Your task to perform on an android device: Do I have any events tomorrow? Image 0: 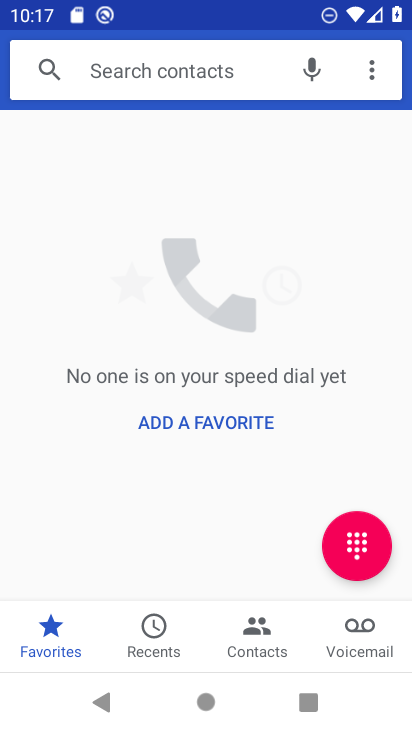
Step 0: press home button
Your task to perform on an android device: Do I have any events tomorrow? Image 1: 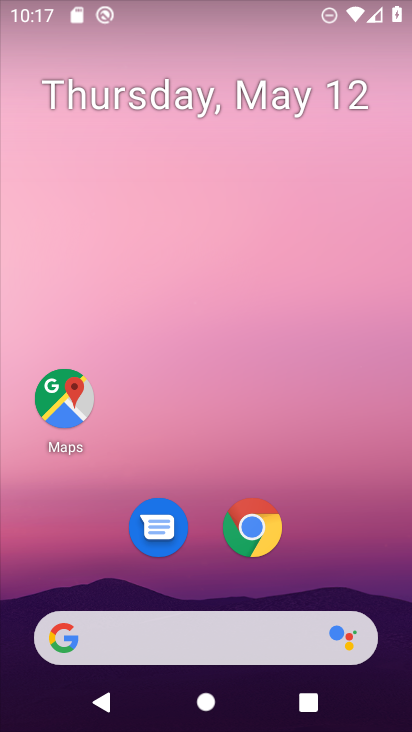
Step 1: drag from (343, 560) to (343, 154)
Your task to perform on an android device: Do I have any events tomorrow? Image 2: 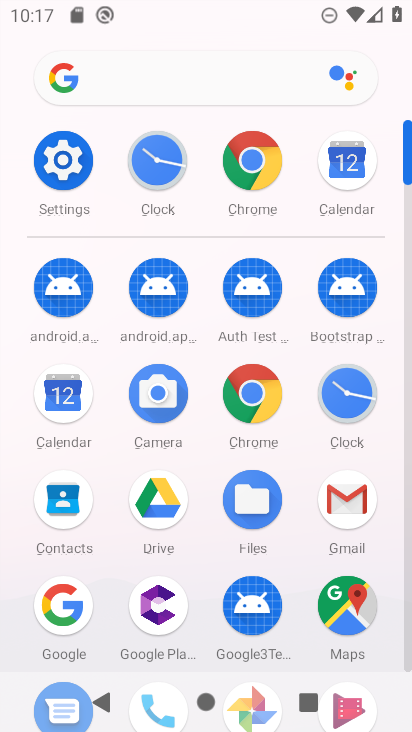
Step 2: click (355, 169)
Your task to perform on an android device: Do I have any events tomorrow? Image 3: 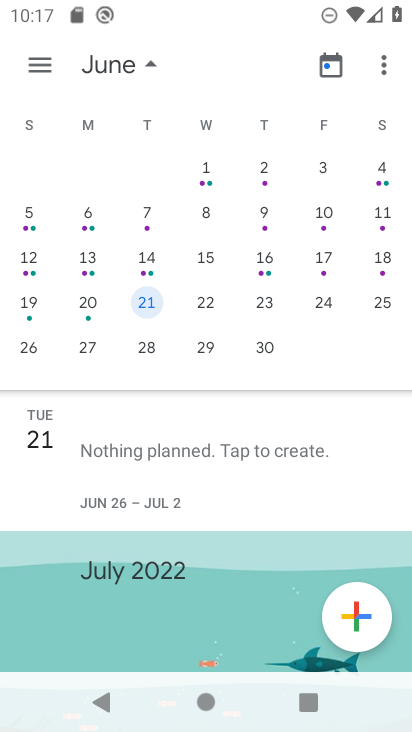
Step 3: task complete